Your task to perform on an android device: turn off smart reply in the gmail app Image 0: 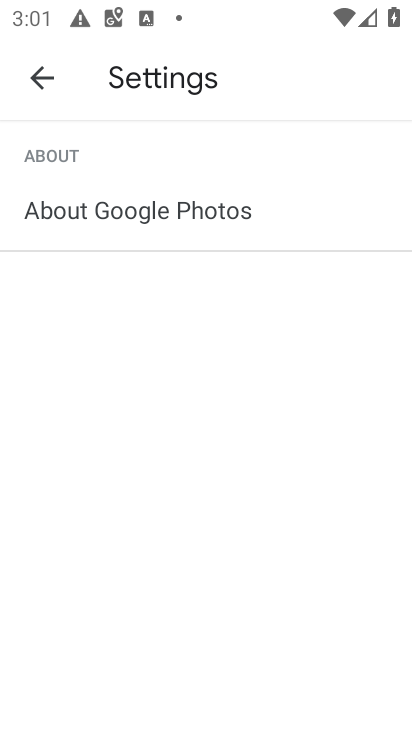
Step 0: press home button
Your task to perform on an android device: turn off smart reply in the gmail app Image 1: 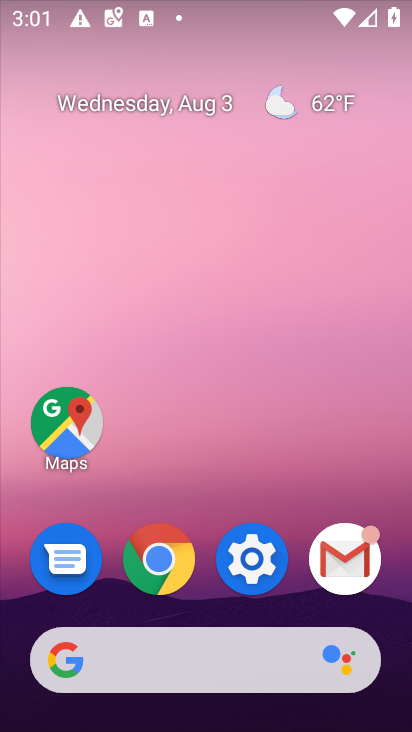
Step 1: click (355, 541)
Your task to perform on an android device: turn off smart reply in the gmail app Image 2: 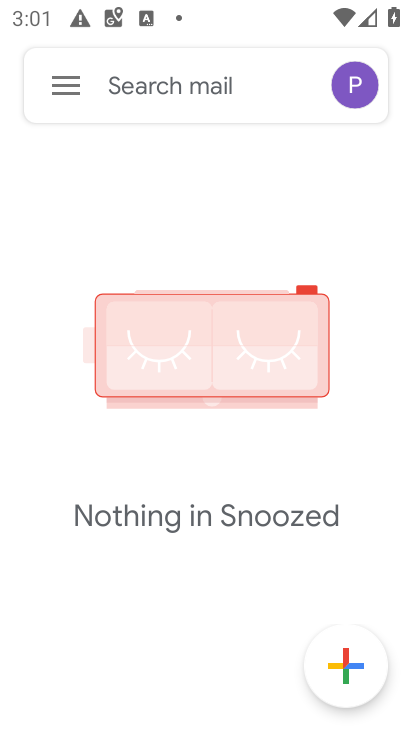
Step 2: click (74, 64)
Your task to perform on an android device: turn off smart reply in the gmail app Image 3: 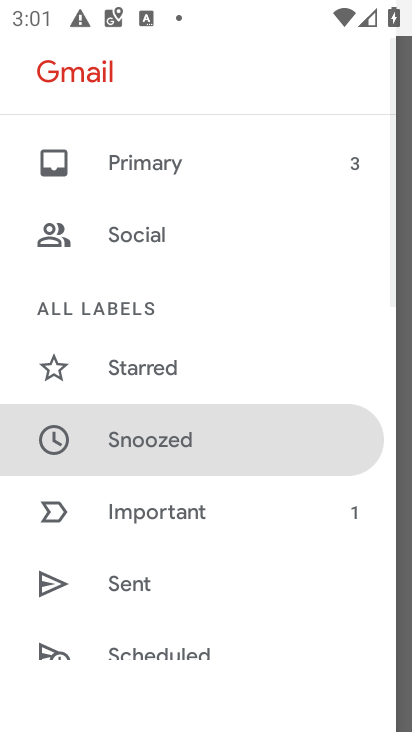
Step 3: drag from (113, 567) to (203, 260)
Your task to perform on an android device: turn off smart reply in the gmail app Image 4: 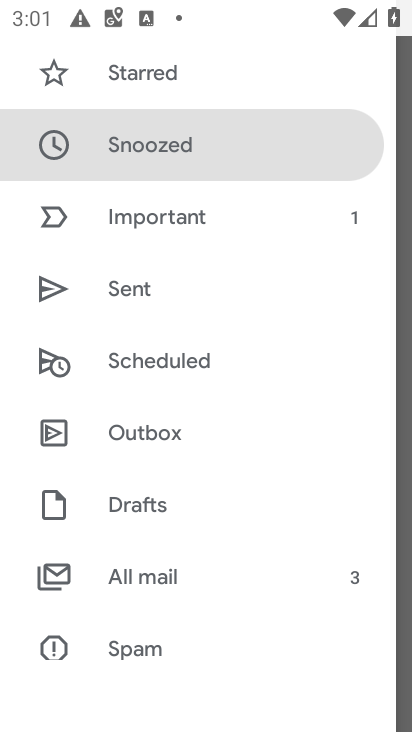
Step 4: drag from (130, 559) to (149, 271)
Your task to perform on an android device: turn off smart reply in the gmail app Image 5: 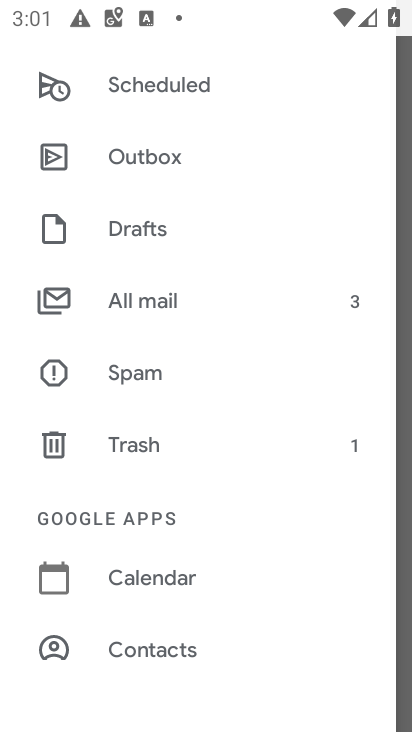
Step 5: drag from (106, 625) to (128, 445)
Your task to perform on an android device: turn off smart reply in the gmail app Image 6: 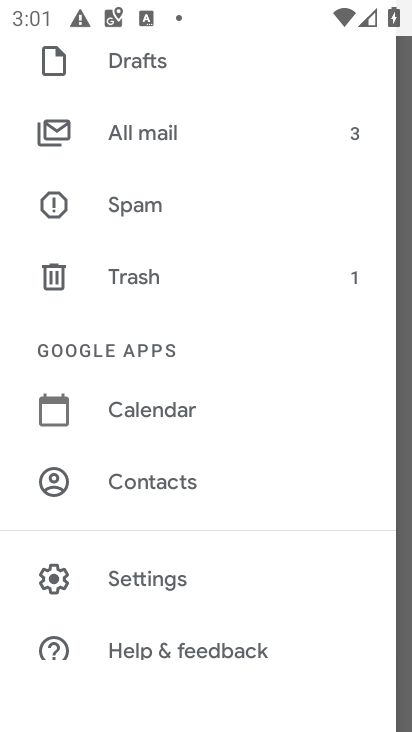
Step 6: click (160, 585)
Your task to perform on an android device: turn off smart reply in the gmail app Image 7: 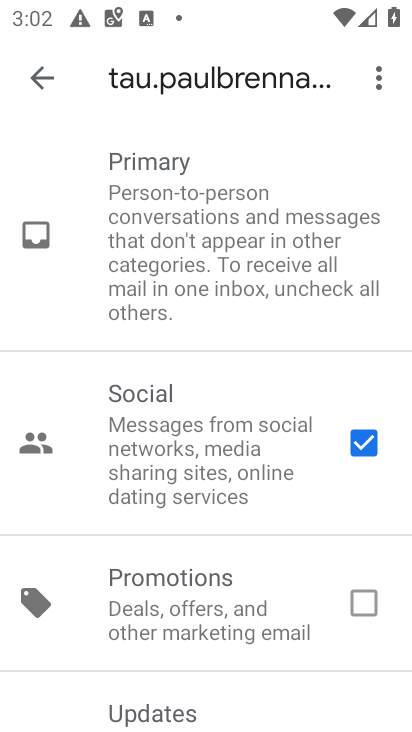
Step 7: click (41, 82)
Your task to perform on an android device: turn off smart reply in the gmail app Image 8: 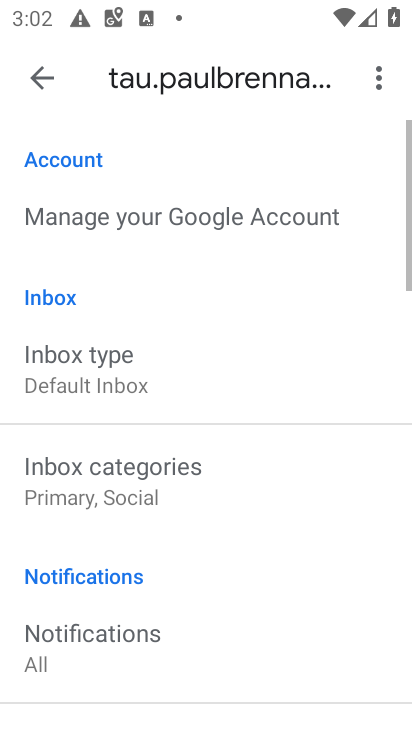
Step 8: drag from (235, 561) to (245, 153)
Your task to perform on an android device: turn off smart reply in the gmail app Image 9: 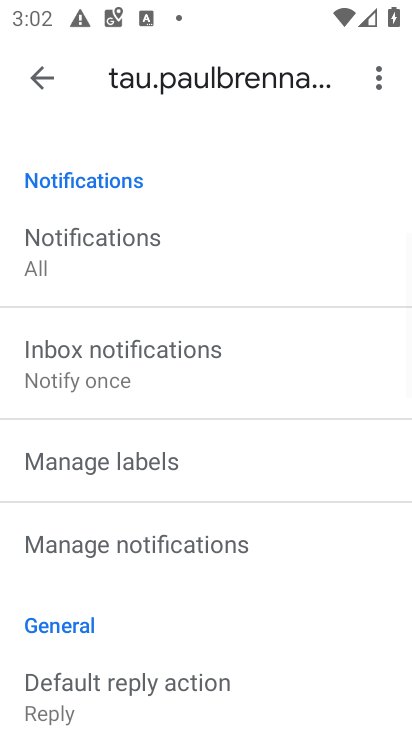
Step 9: drag from (240, 546) to (229, 322)
Your task to perform on an android device: turn off smart reply in the gmail app Image 10: 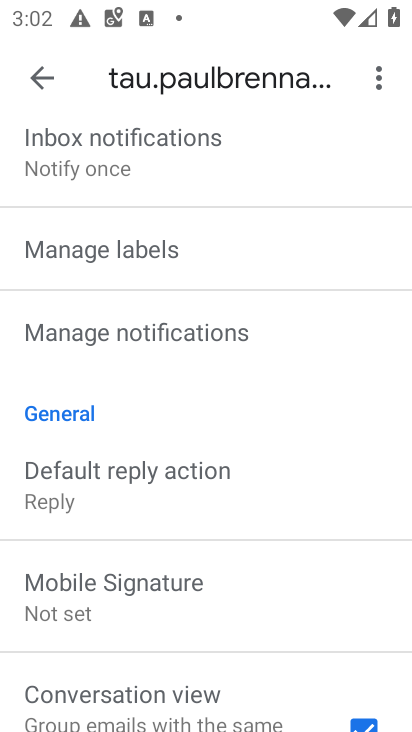
Step 10: drag from (138, 635) to (180, 260)
Your task to perform on an android device: turn off smart reply in the gmail app Image 11: 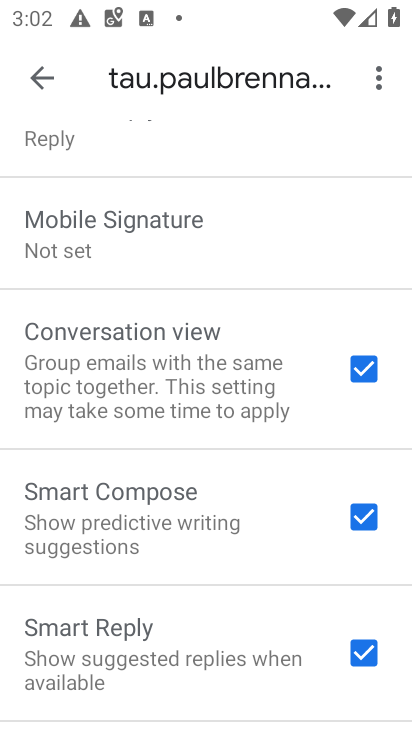
Step 11: click (217, 634)
Your task to perform on an android device: turn off smart reply in the gmail app Image 12: 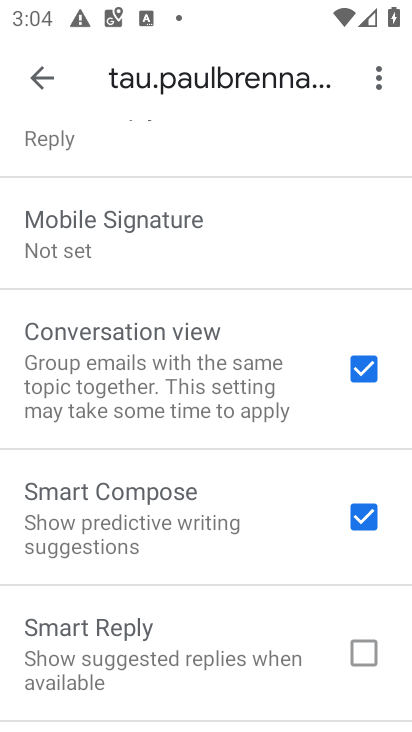
Step 12: task complete